Your task to perform on an android device: turn on location history Image 0: 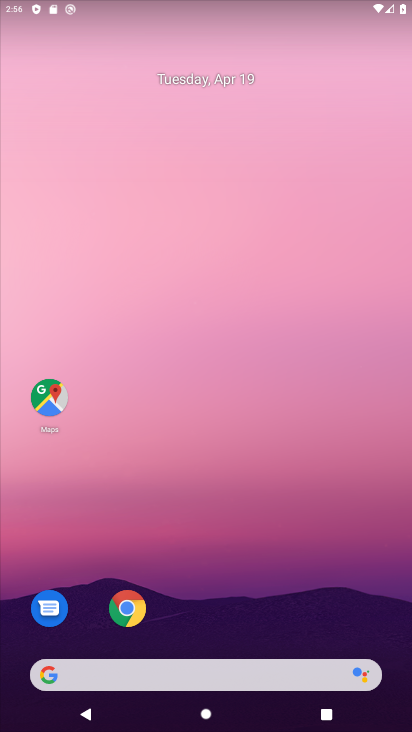
Step 0: drag from (257, 695) to (288, 21)
Your task to perform on an android device: turn on location history Image 1: 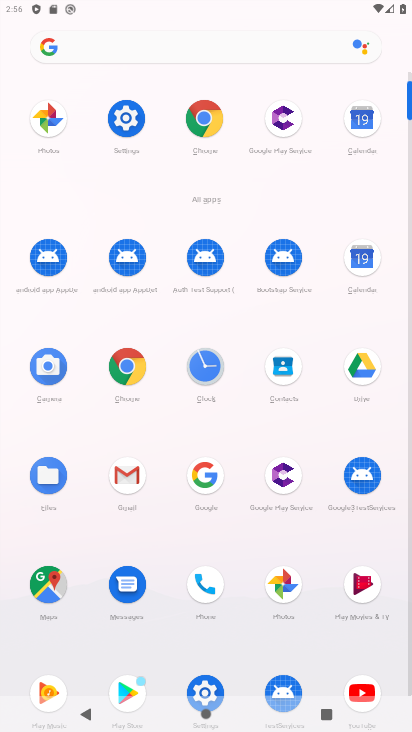
Step 1: click (213, 683)
Your task to perform on an android device: turn on location history Image 2: 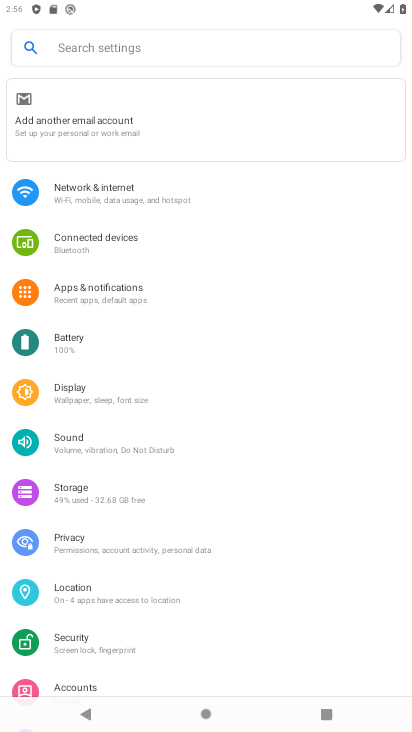
Step 2: click (86, 597)
Your task to perform on an android device: turn on location history Image 3: 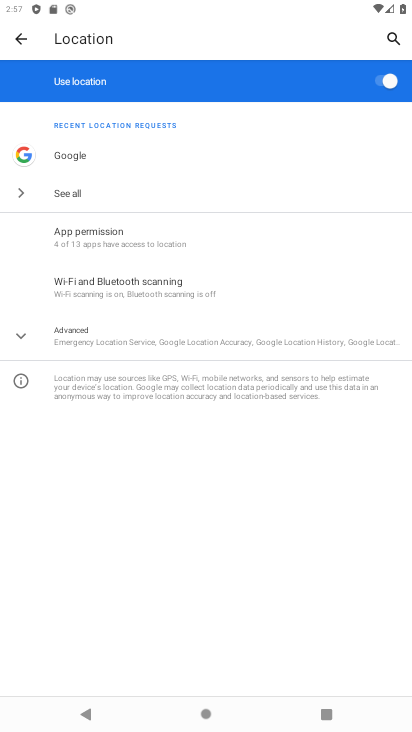
Step 3: click (97, 344)
Your task to perform on an android device: turn on location history Image 4: 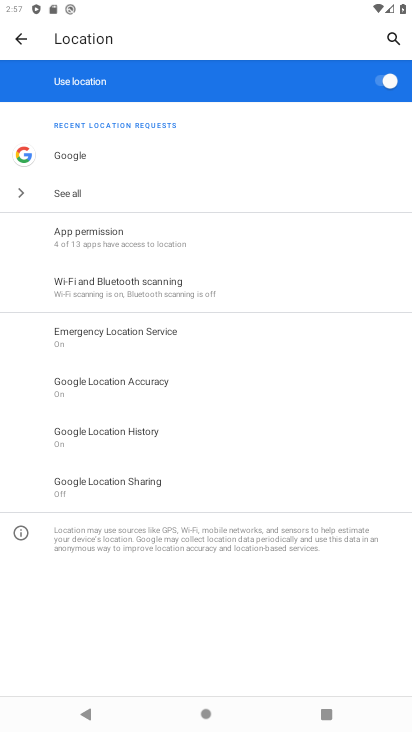
Step 4: task complete